Your task to perform on an android device: Open settings on Google Maps Image 0: 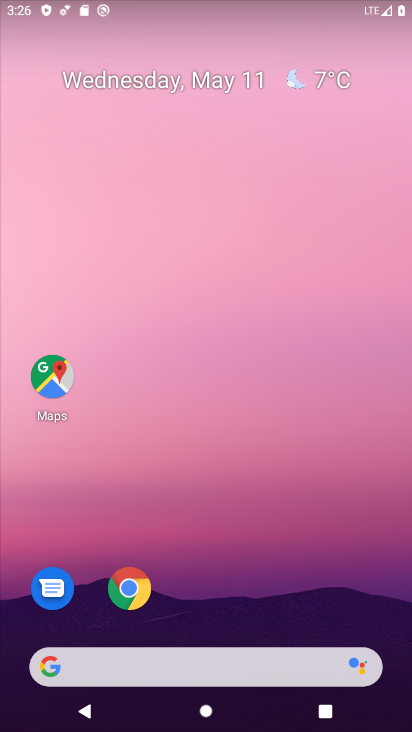
Step 0: drag from (218, 726) to (195, 179)
Your task to perform on an android device: Open settings on Google Maps Image 1: 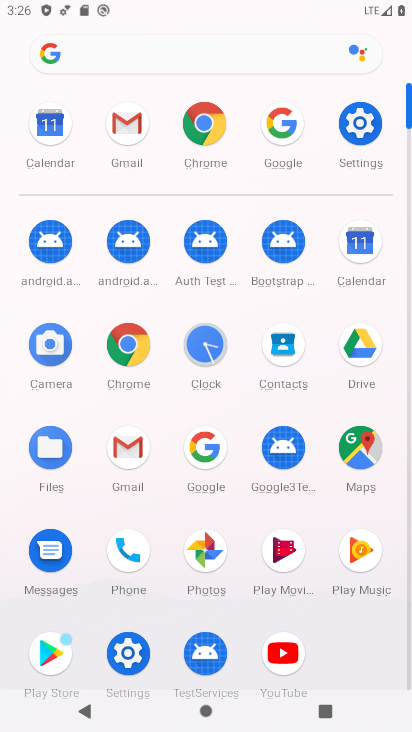
Step 1: click (363, 454)
Your task to perform on an android device: Open settings on Google Maps Image 2: 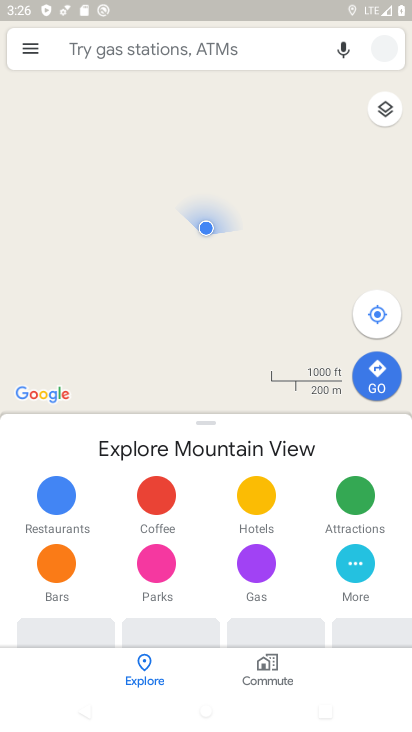
Step 2: click (30, 43)
Your task to perform on an android device: Open settings on Google Maps Image 3: 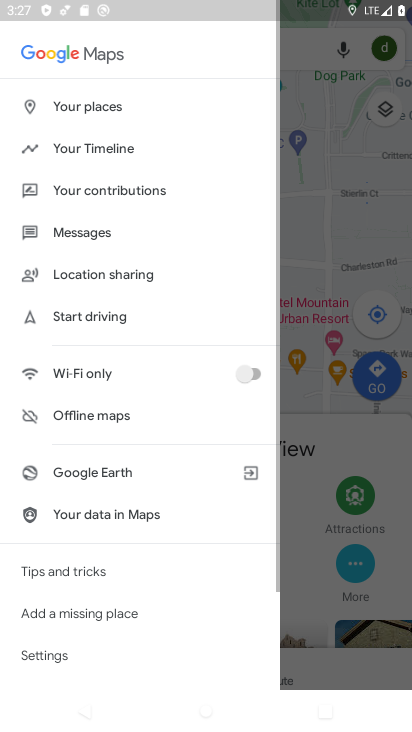
Step 3: click (55, 654)
Your task to perform on an android device: Open settings on Google Maps Image 4: 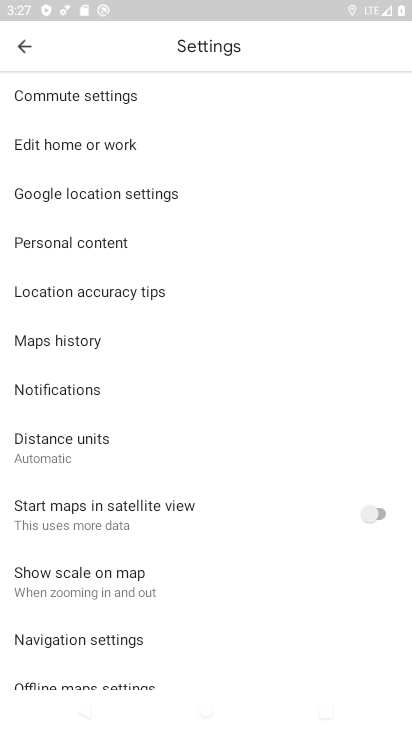
Step 4: task complete